Your task to perform on an android device: star an email in the gmail app Image 0: 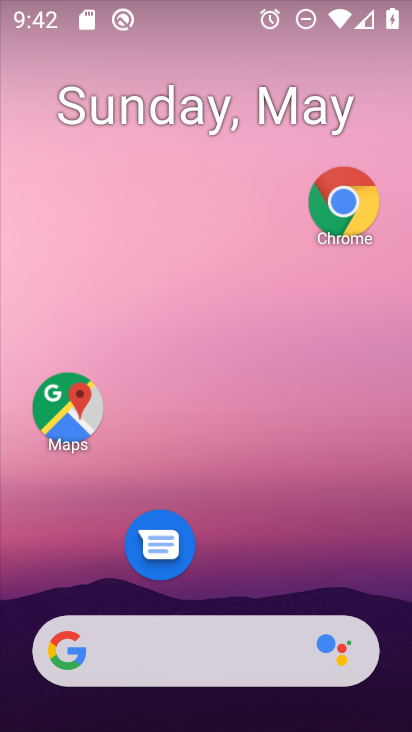
Step 0: drag from (261, 594) to (298, 56)
Your task to perform on an android device: star an email in the gmail app Image 1: 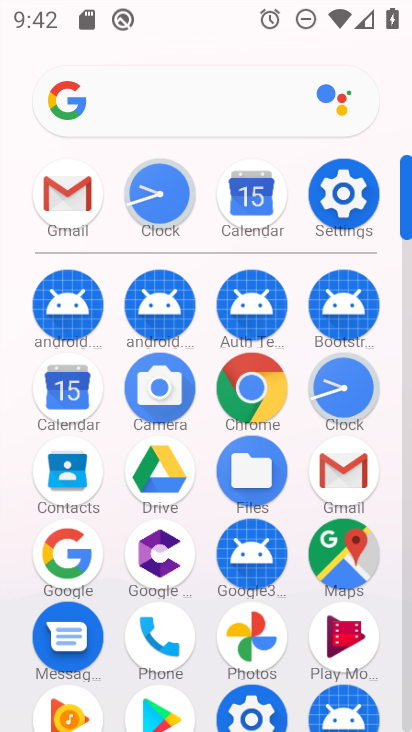
Step 1: click (61, 185)
Your task to perform on an android device: star an email in the gmail app Image 2: 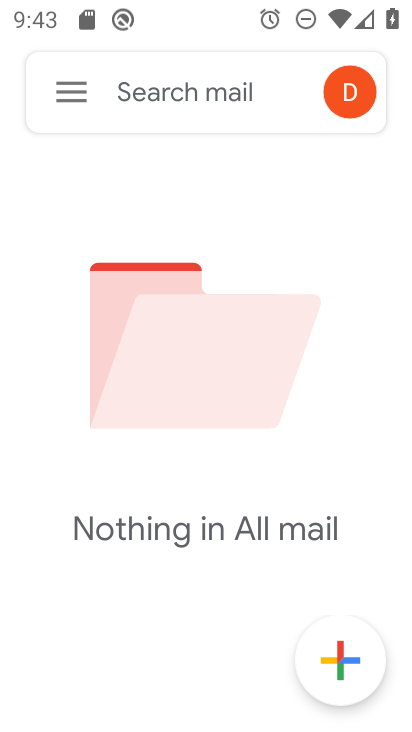
Step 2: click (60, 80)
Your task to perform on an android device: star an email in the gmail app Image 3: 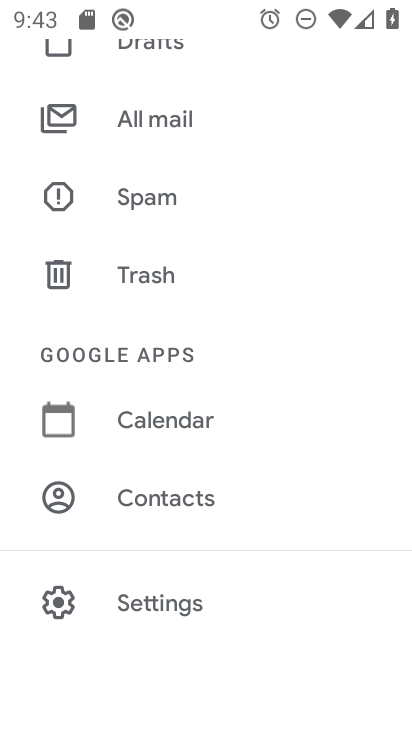
Step 3: click (163, 108)
Your task to perform on an android device: star an email in the gmail app Image 4: 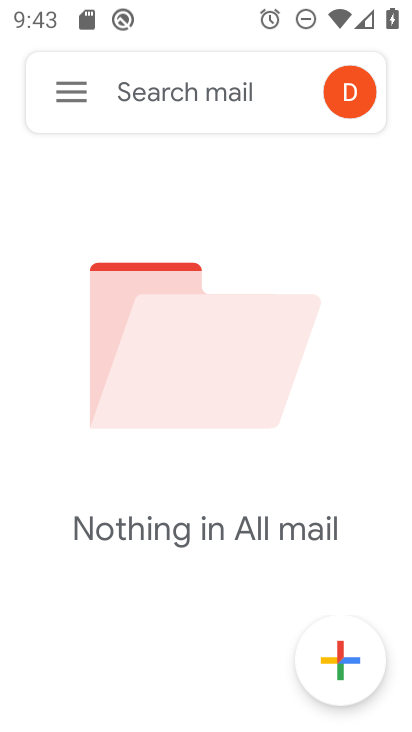
Step 4: task complete